Your task to perform on an android device: toggle location history Image 0: 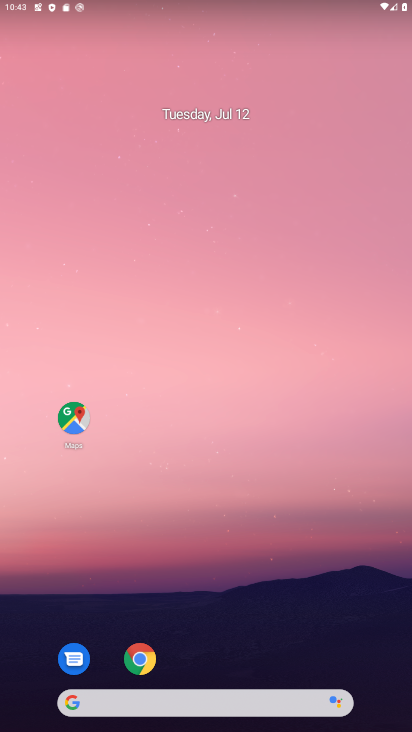
Step 0: drag from (382, 534) to (356, 77)
Your task to perform on an android device: toggle location history Image 1: 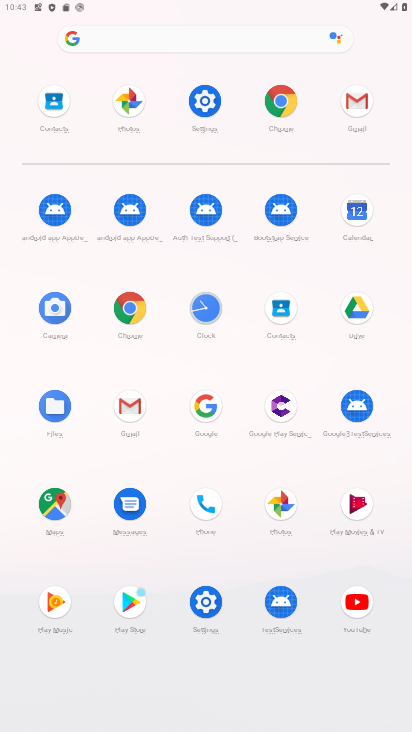
Step 1: click (210, 103)
Your task to perform on an android device: toggle location history Image 2: 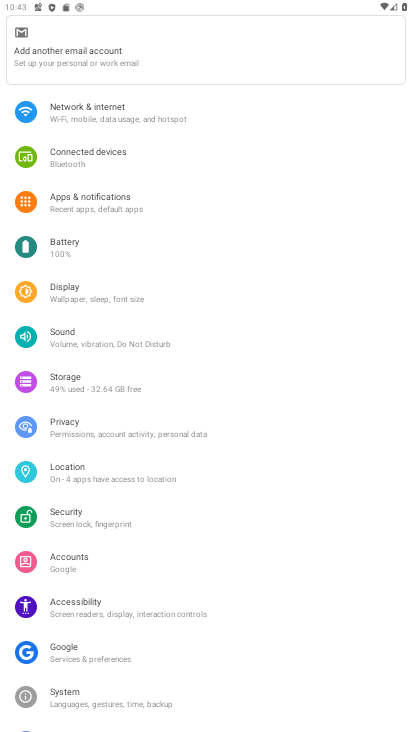
Step 2: click (61, 468)
Your task to perform on an android device: toggle location history Image 3: 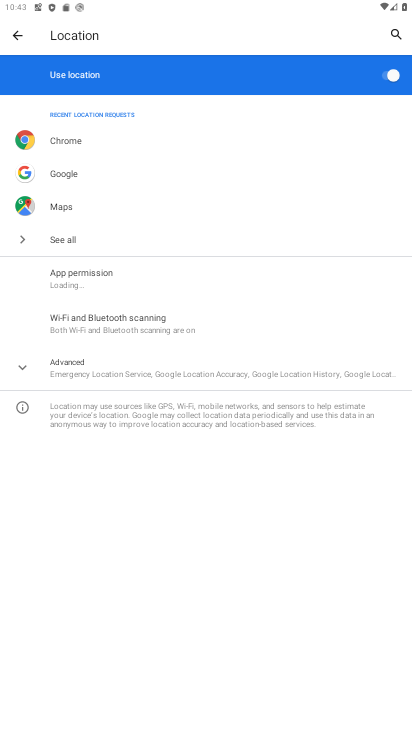
Step 3: click (20, 365)
Your task to perform on an android device: toggle location history Image 4: 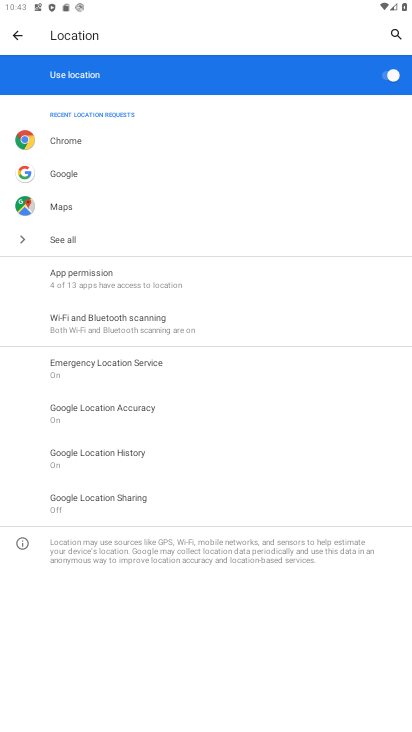
Step 4: click (90, 455)
Your task to perform on an android device: toggle location history Image 5: 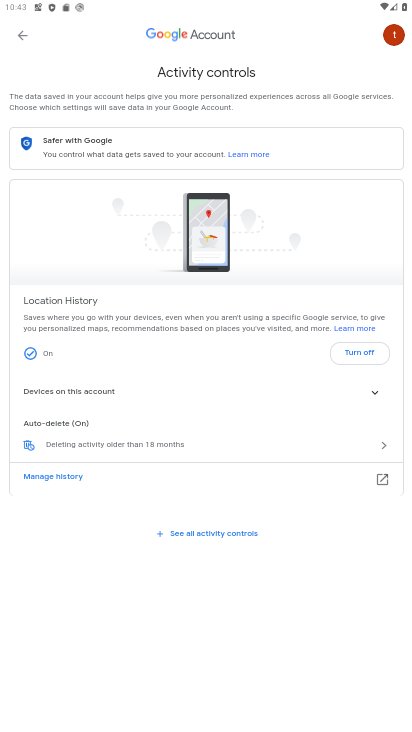
Step 5: click (41, 352)
Your task to perform on an android device: toggle location history Image 6: 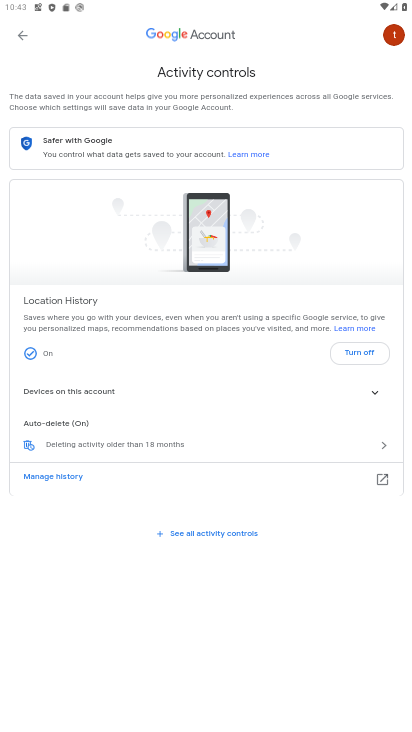
Step 6: click (356, 345)
Your task to perform on an android device: toggle location history Image 7: 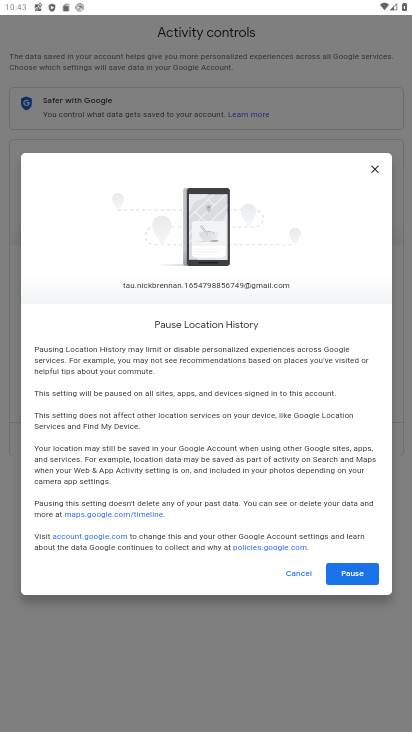
Step 7: drag from (287, 521) to (249, 145)
Your task to perform on an android device: toggle location history Image 8: 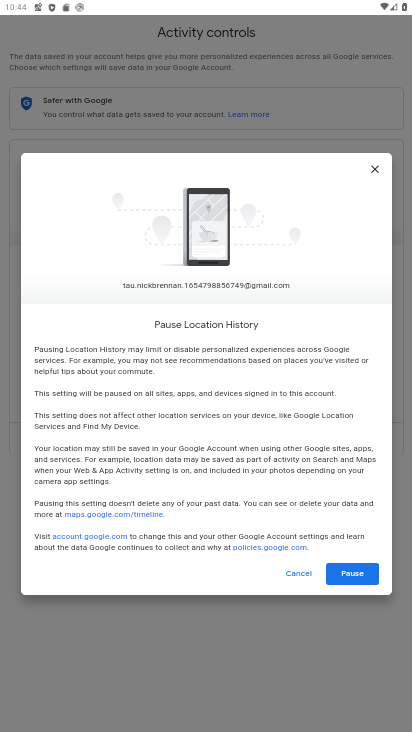
Step 8: drag from (206, 539) to (172, 268)
Your task to perform on an android device: toggle location history Image 9: 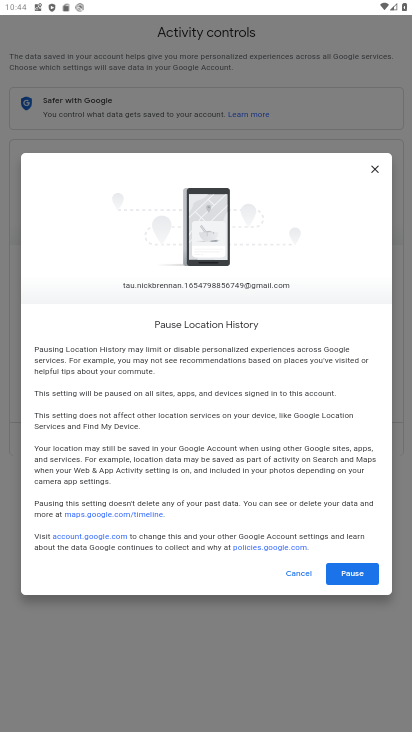
Step 9: drag from (207, 527) to (225, 271)
Your task to perform on an android device: toggle location history Image 10: 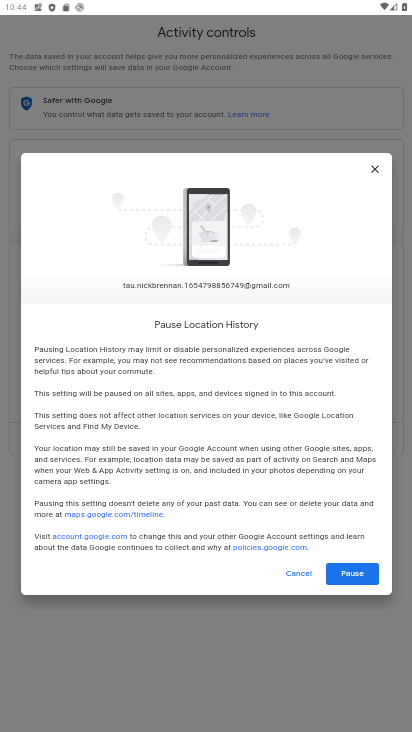
Step 10: drag from (265, 466) to (281, 243)
Your task to perform on an android device: toggle location history Image 11: 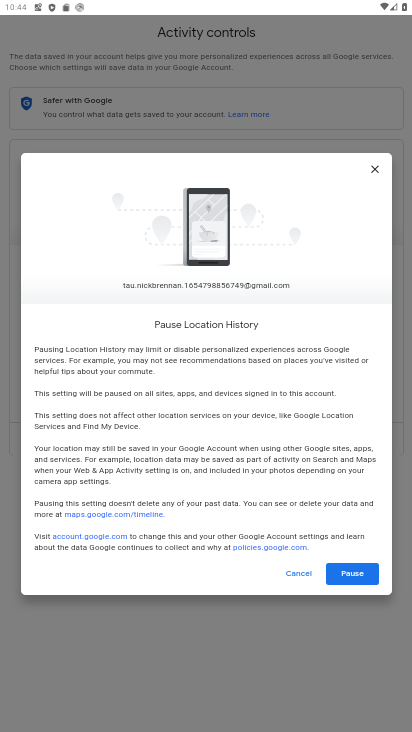
Step 11: click (335, 568)
Your task to perform on an android device: toggle location history Image 12: 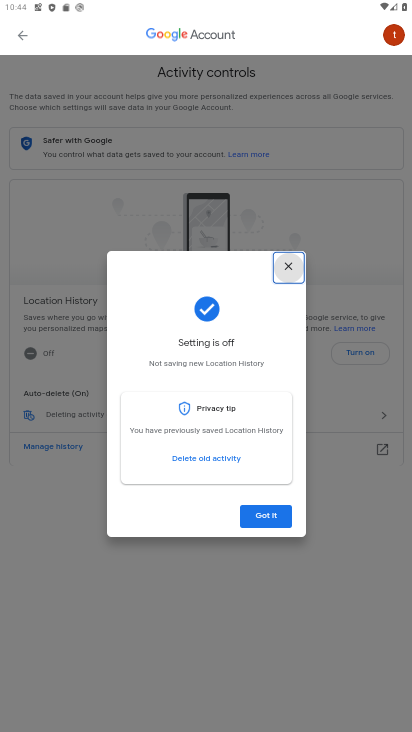
Step 12: click (281, 511)
Your task to perform on an android device: toggle location history Image 13: 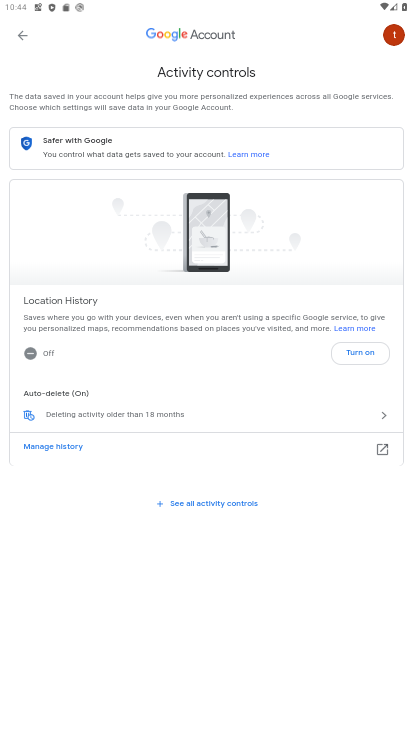
Step 13: task complete